Your task to perform on an android device: turn off javascript in the chrome app Image 0: 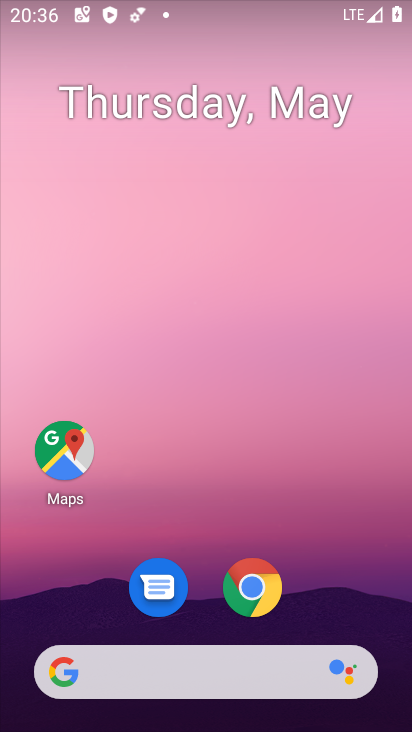
Step 0: click (250, 597)
Your task to perform on an android device: turn off javascript in the chrome app Image 1: 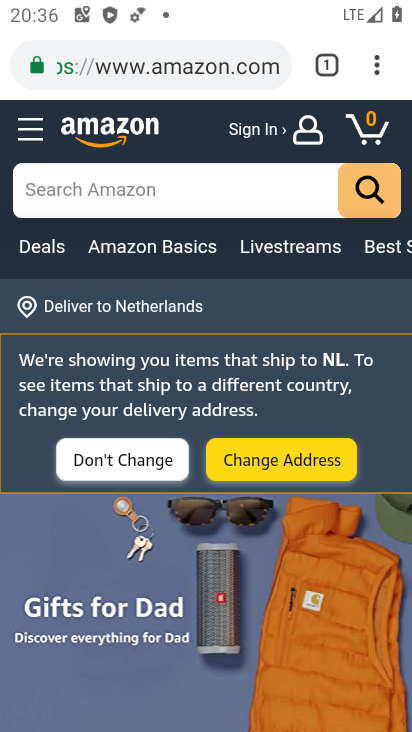
Step 1: click (378, 76)
Your task to perform on an android device: turn off javascript in the chrome app Image 2: 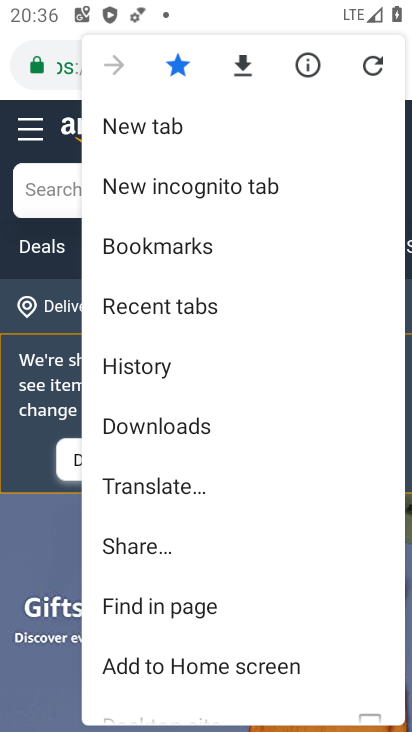
Step 2: drag from (319, 677) to (308, 253)
Your task to perform on an android device: turn off javascript in the chrome app Image 3: 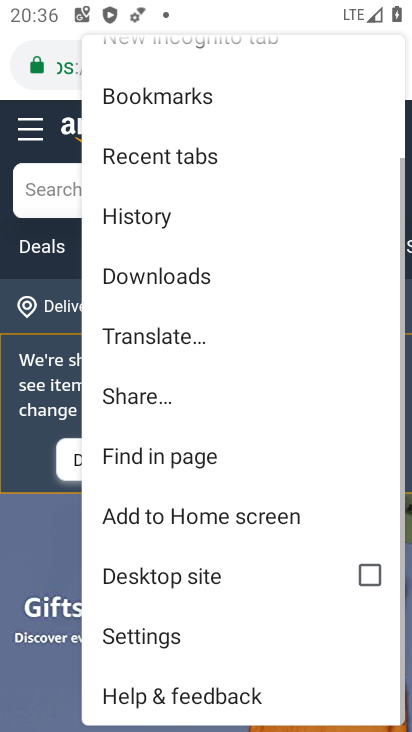
Step 3: click (140, 641)
Your task to perform on an android device: turn off javascript in the chrome app Image 4: 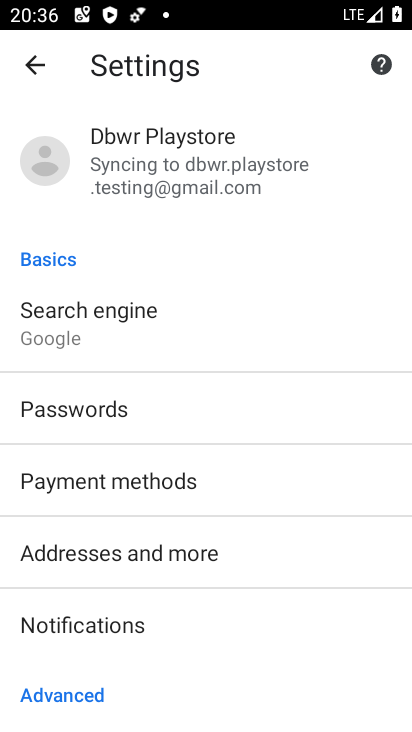
Step 4: drag from (195, 666) to (247, 211)
Your task to perform on an android device: turn off javascript in the chrome app Image 5: 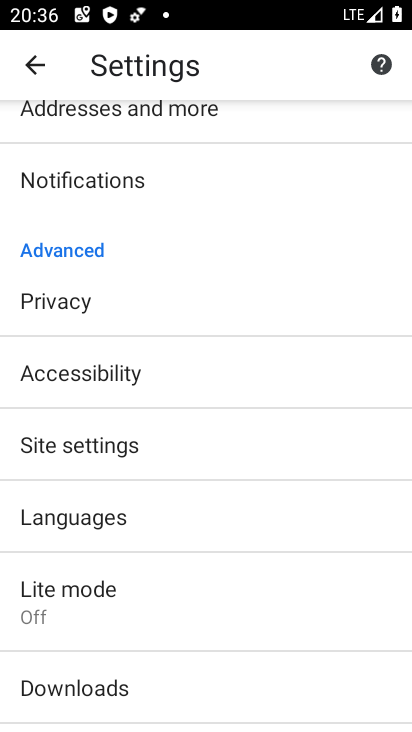
Step 5: click (101, 453)
Your task to perform on an android device: turn off javascript in the chrome app Image 6: 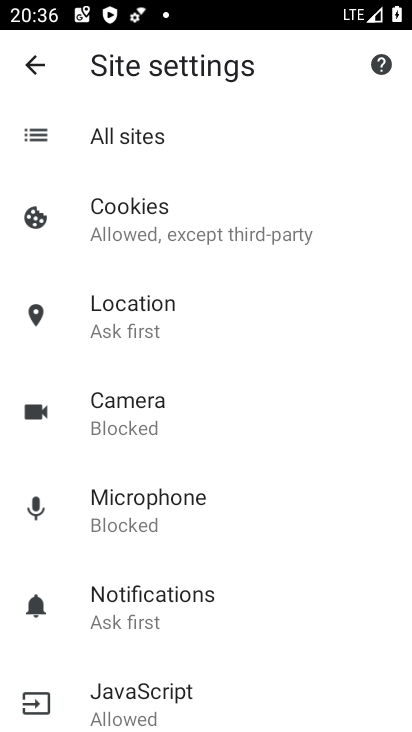
Step 6: click (187, 705)
Your task to perform on an android device: turn off javascript in the chrome app Image 7: 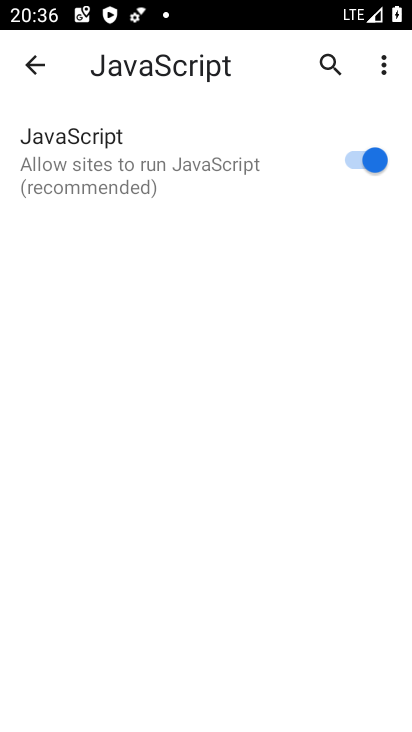
Step 7: click (382, 164)
Your task to perform on an android device: turn off javascript in the chrome app Image 8: 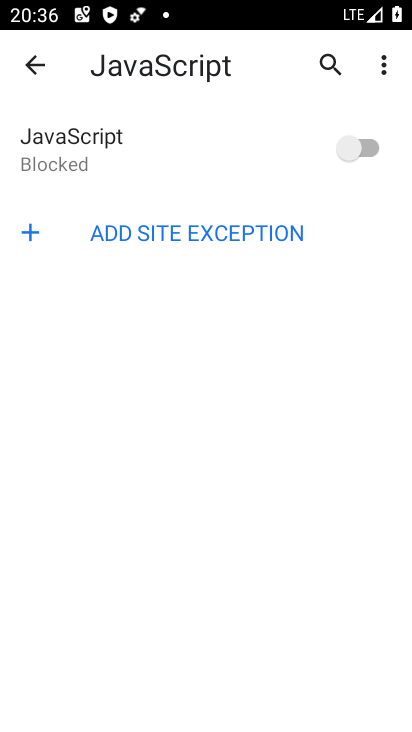
Step 8: task complete